Your task to perform on an android device: toggle javascript in the chrome app Image 0: 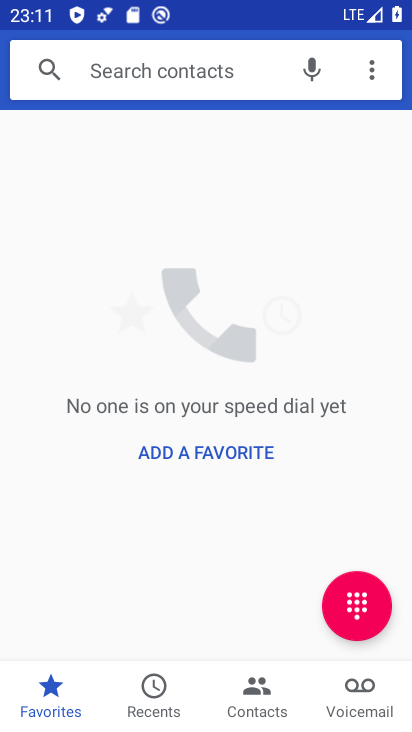
Step 0: press home button
Your task to perform on an android device: toggle javascript in the chrome app Image 1: 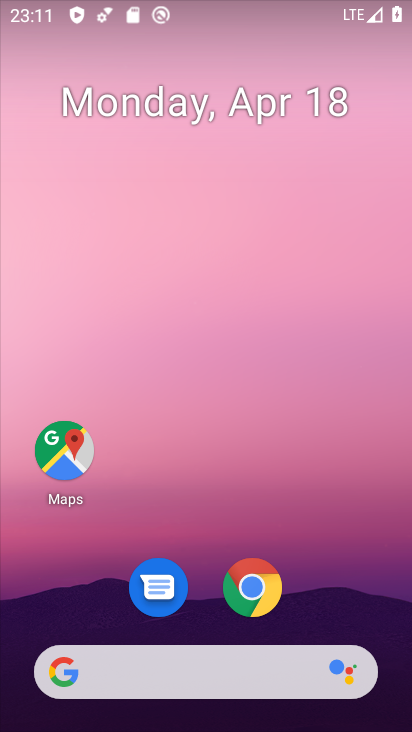
Step 1: drag from (381, 553) to (360, 162)
Your task to perform on an android device: toggle javascript in the chrome app Image 2: 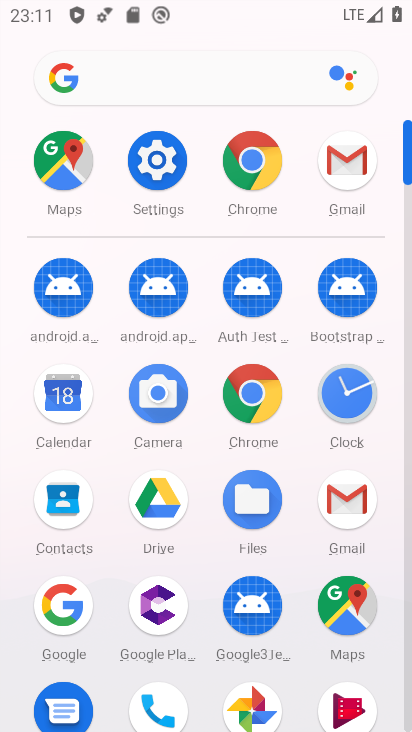
Step 2: click (255, 407)
Your task to perform on an android device: toggle javascript in the chrome app Image 3: 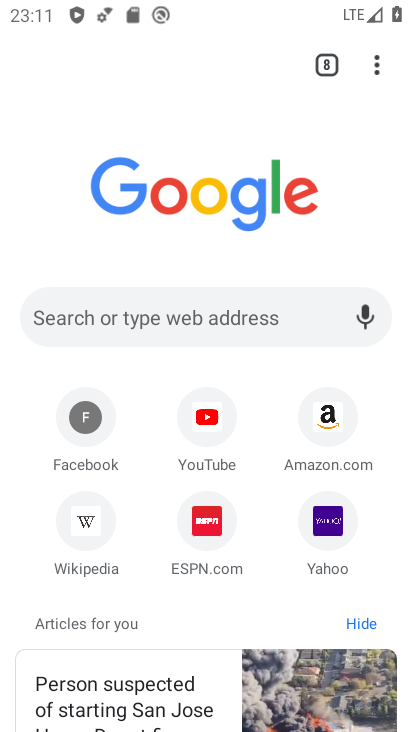
Step 3: click (375, 57)
Your task to perform on an android device: toggle javascript in the chrome app Image 4: 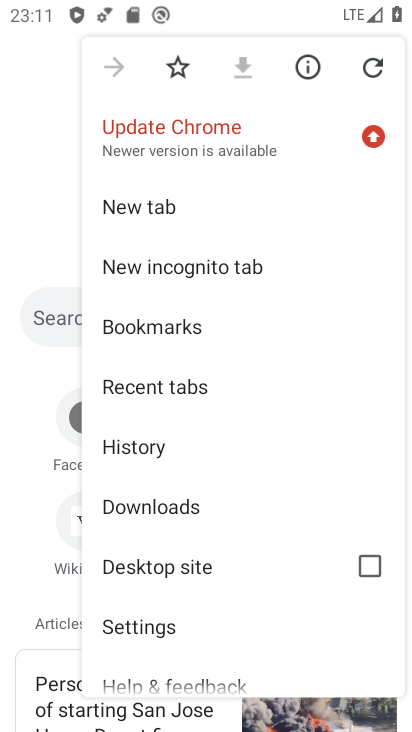
Step 4: click (152, 621)
Your task to perform on an android device: toggle javascript in the chrome app Image 5: 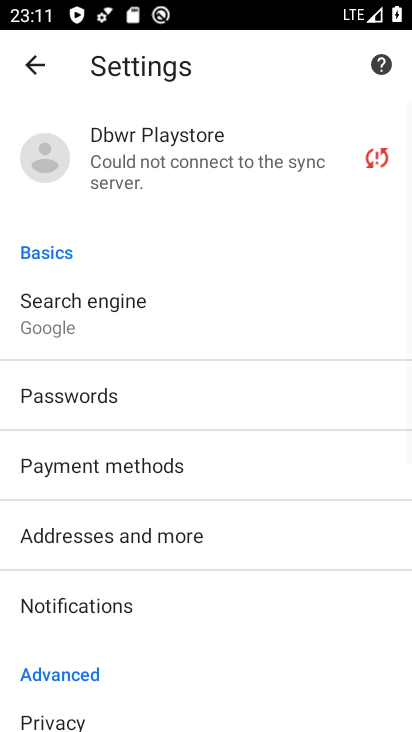
Step 5: drag from (257, 621) to (287, 300)
Your task to perform on an android device: toggle javascript in the chrome app Image 6: 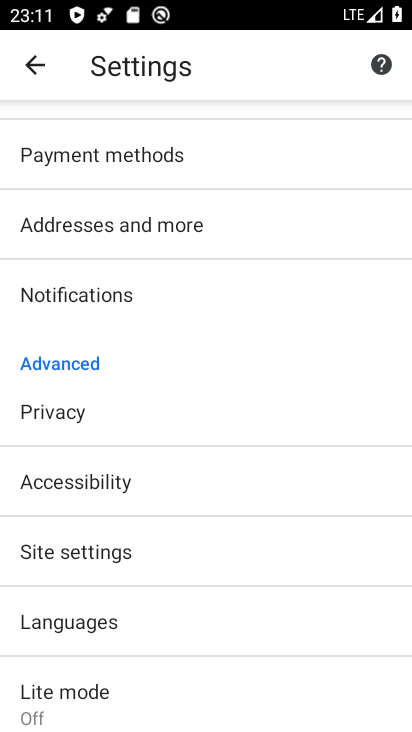
Step 6: click (99, 551)
Your task to perform on an android device: toggle javascript in the chrome app Image 7: 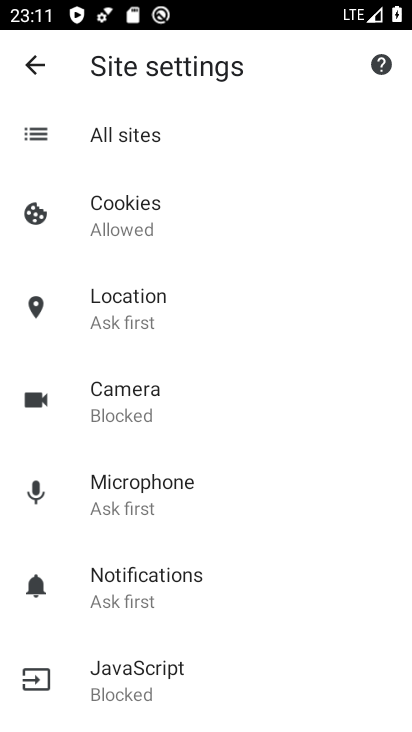
Step 7: click (171, 677)
Your task to perform on an android device: toggle javascript in the chrome app Image 8: 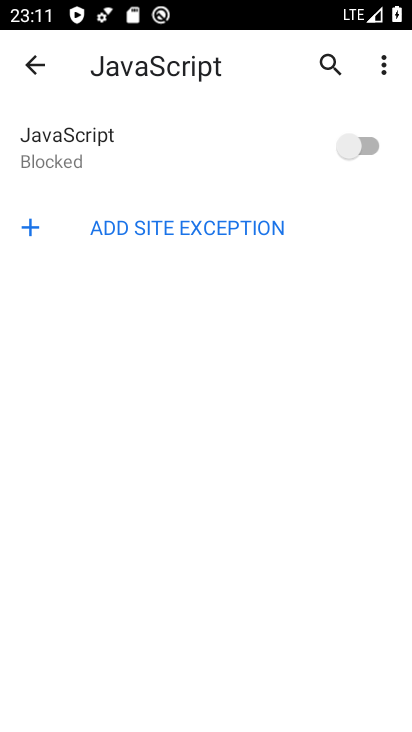
Step 8: click (371, 147)
Your task to perform on an android device: toggle javascript in the chrome app Image 9: 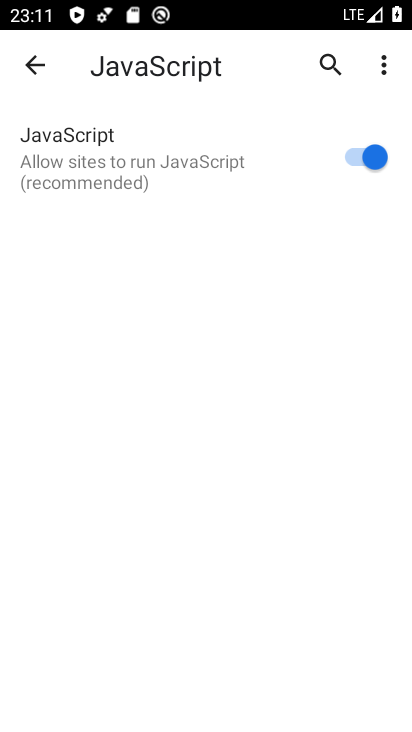
Step 9: task complete